Your task to perform on an android device: all mails in gmail Image 0: 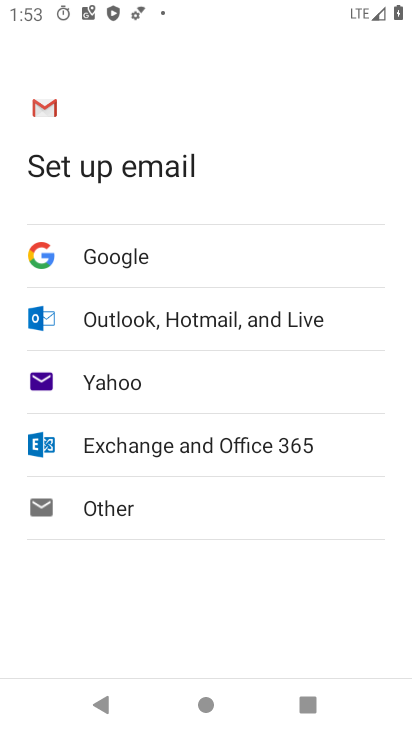
Step 0: press home button
Your task to perform on an android device: all mails in gmail Image 1: 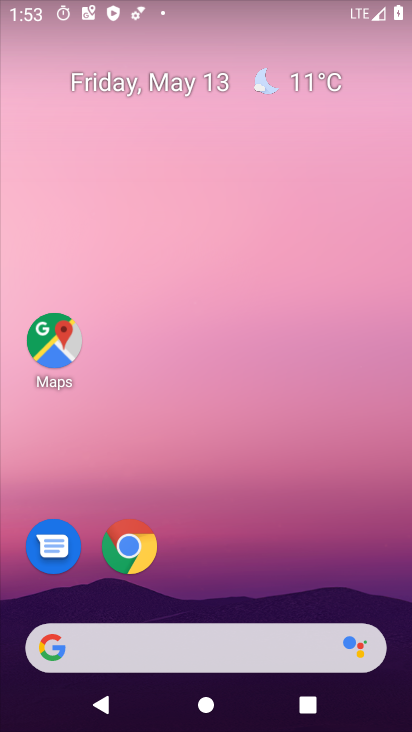
Step 1: drag from (119, 635) to (193, 119)
Your task to perform on an android device: all mails in gmail Image 2: 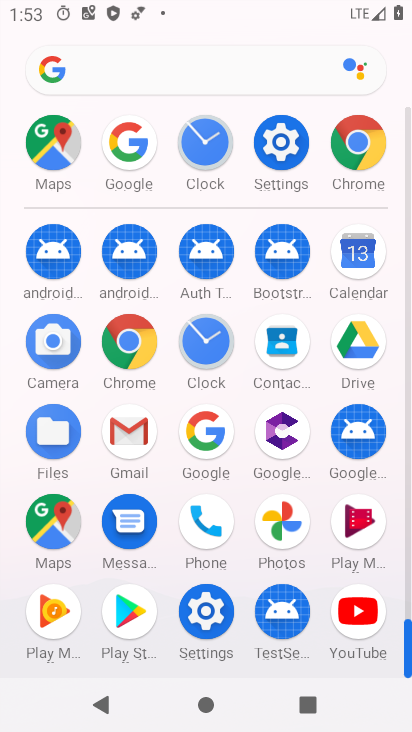
Step 2: click (133, 447)
Your task to perform on an android device: all mails in gmail Image 3: 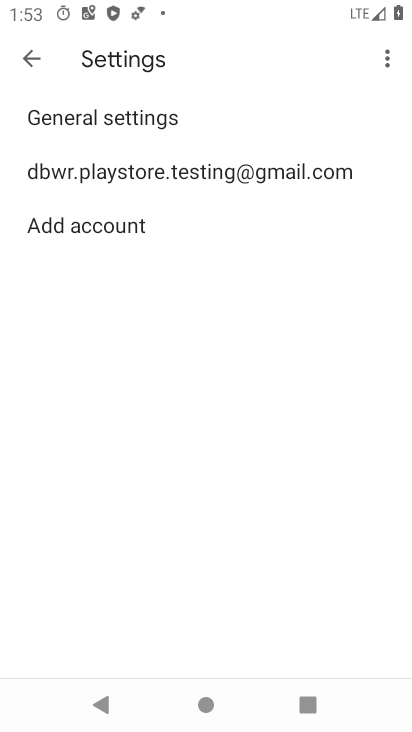
Step 3: click (33, 62)
Your task to perform on an android device: all mails in gmail Image 4: 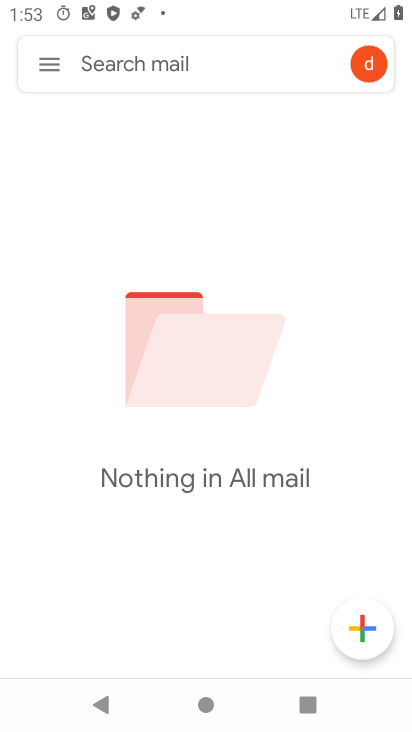
Step 4: task complete